Your task to perform on an android device: Open internet settings Image 0: 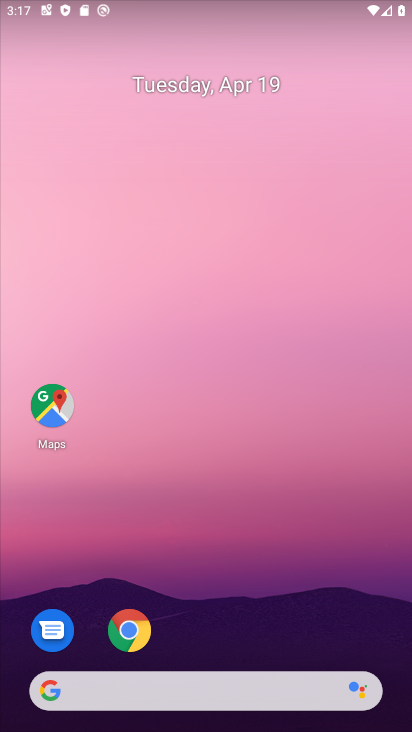
Step 0: drag from (350, 573) to (354, 109)
Your task to perform on an android device: Open internet settings Image 1: 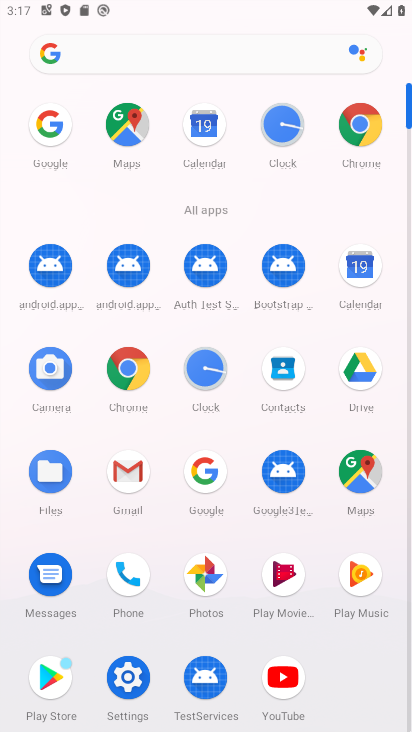
Step 1: click (114, 686)
Your task to perform on an android device: Open internet settings Image 2: 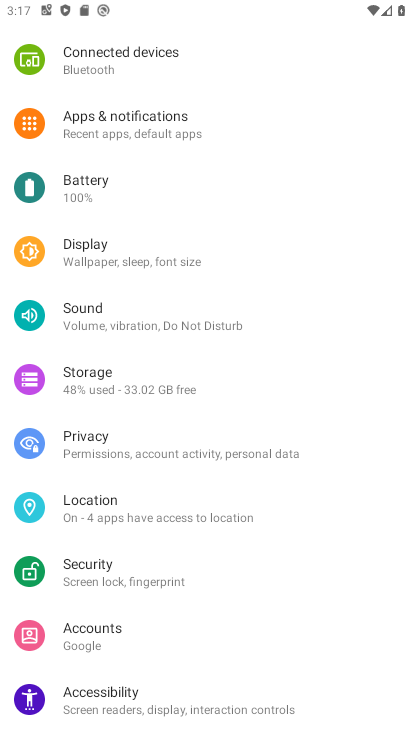
Step 2: drag from (159, 204) to (176, 439)
Your task to perform on an android device: Open internet settings Image 3: 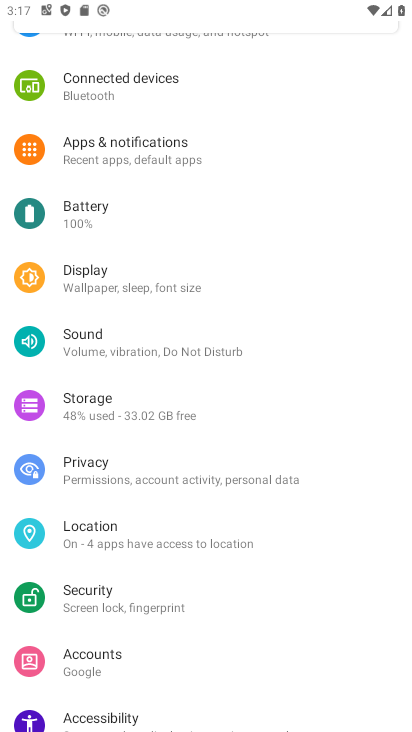
Step 3: drag from (221, 262) to (184, 468)
Your task to perform on an android device: Open internet settings Image 4: 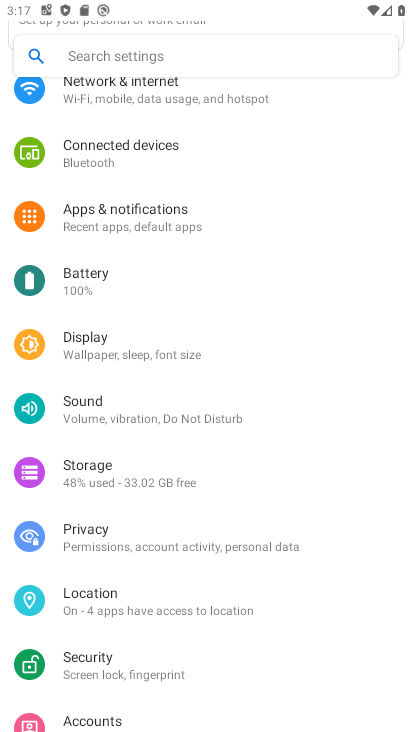
Step 4: drag from (199, 297) to (218, 542)
Your task to perform on an android device: Open internet settings Image 5: 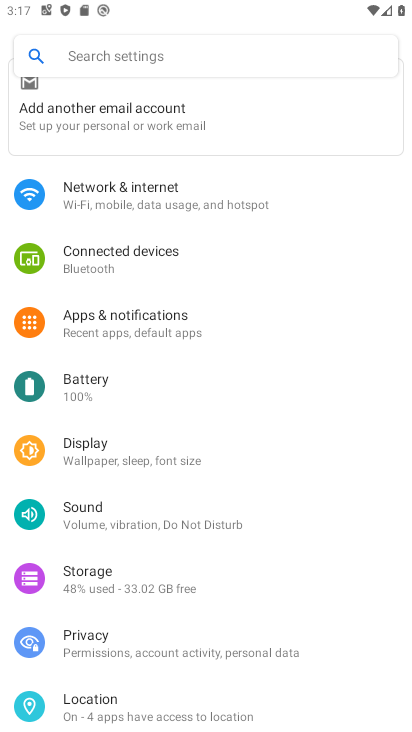
Step 5: drag from (252, 299) to (204, 594)
Your task to perform on an android device: Open internet settings Image 6: 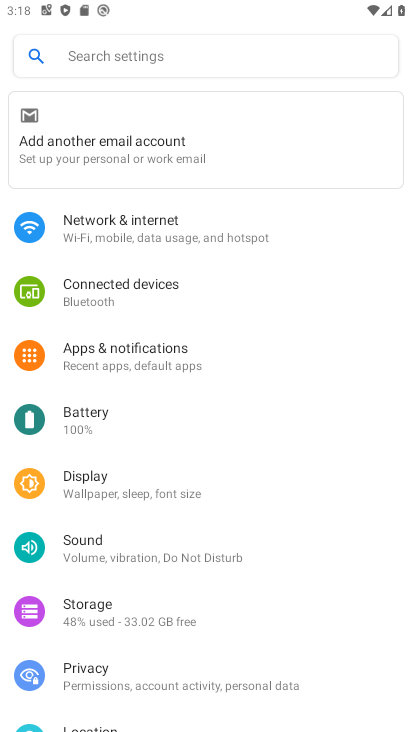
Step 6: click (153, 231)
Your task to perform on an android device: Open internet settings Image 7: 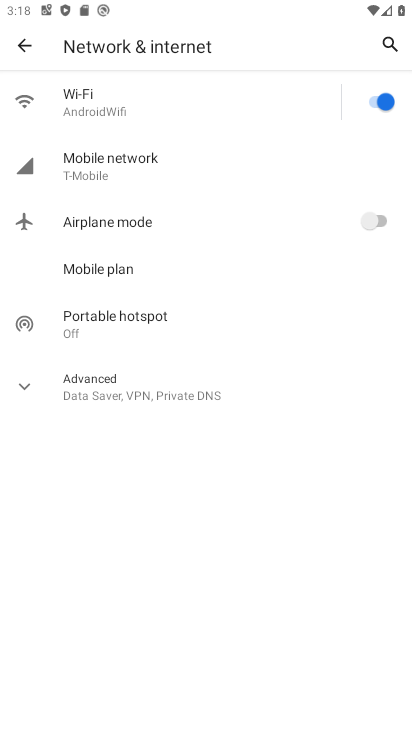
Step 7: click (131, 176)
Your task to perform on an android device: Open internet settings Image 8: 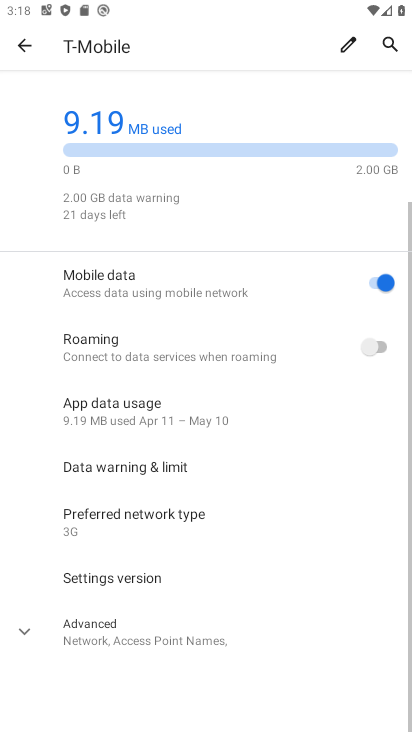
Step 8: click (152, 145)
Your task to perform on an android device: Open internet settings Image 9: 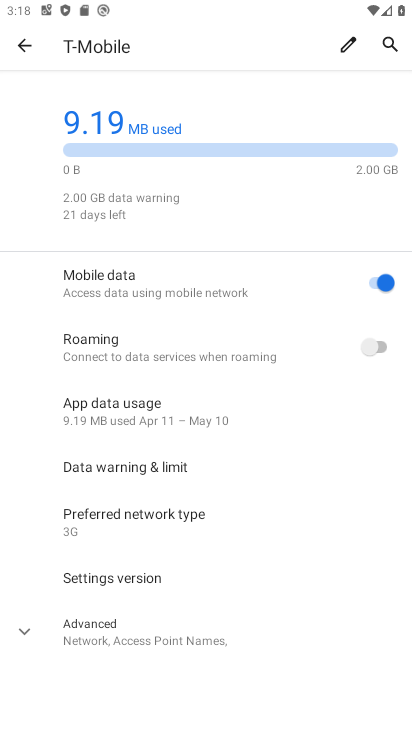
Step 9: task complete